Your task to perform on an android device: Open sound settings Image 0: 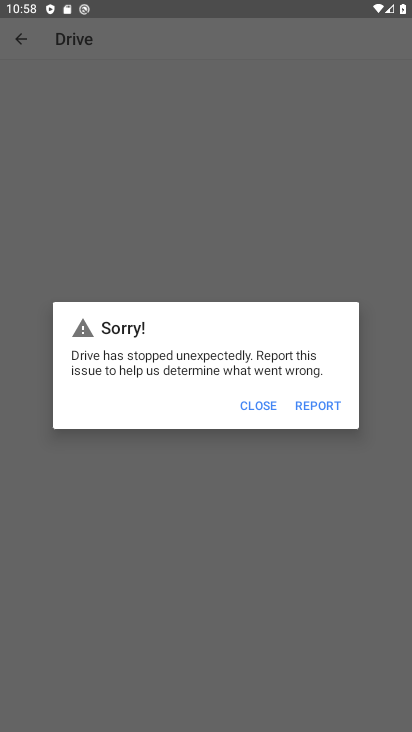
Step 0: press home button
Your task to perform on an android device: Open sound settings Image 1: 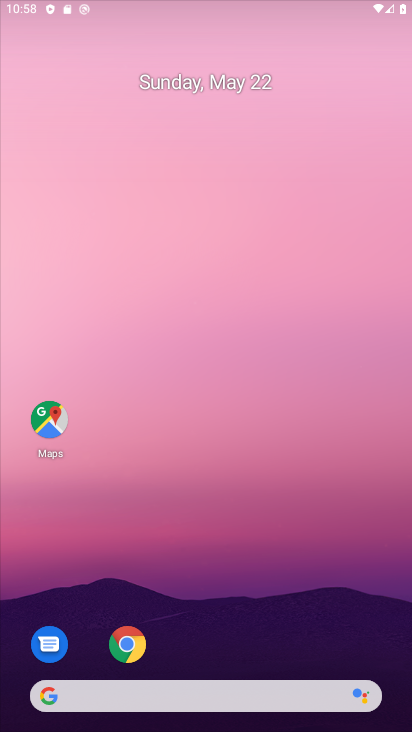
Step 1: drag from (301, 646) to (298, 4)
Your task to perform on an android device: Open sound settings Image 2: 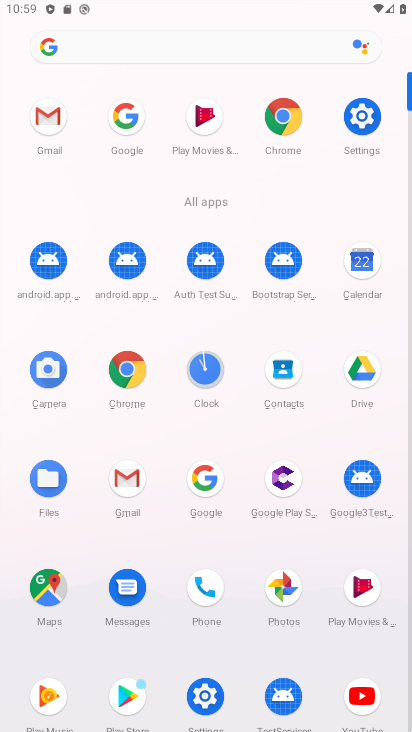
Step 2: click (385, 117)
Your task to perform on an android device: Open sound settings Image 3: 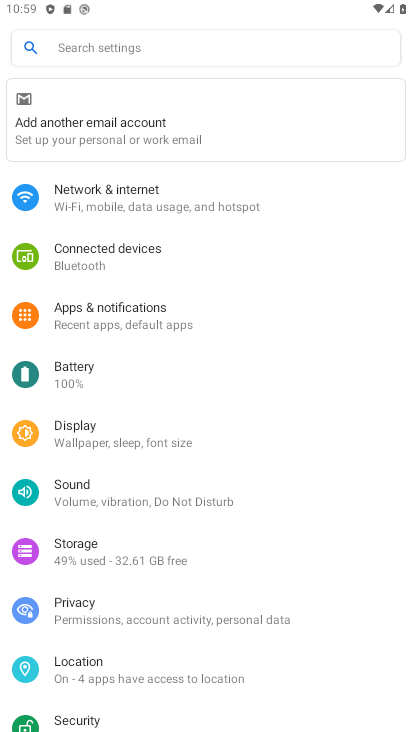
Step 3: click (108, 493)
Your task to perform on an android device: Open sound settings Image 4: 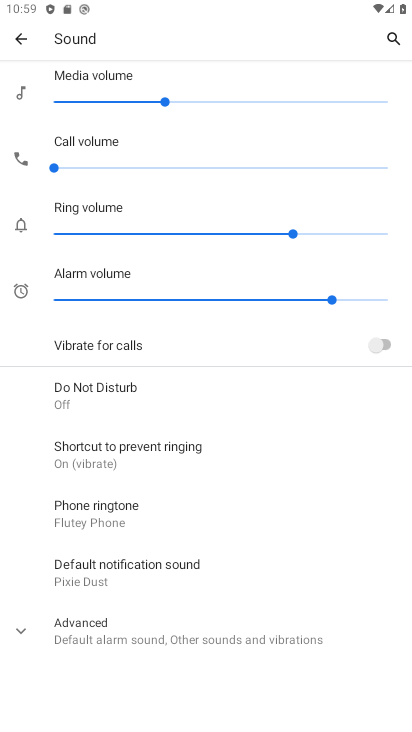
Step 4: task complete